Your task to perform on an android device: turn off notifications settings in the gmail app Image 0: 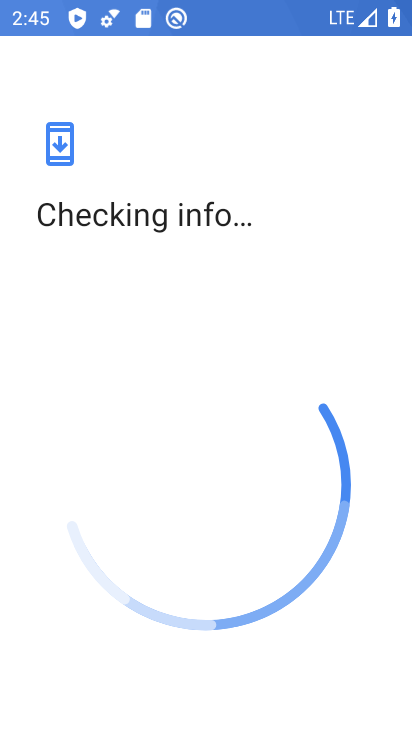
Step 0: press home button
Your task to perform on an android device: turn off notifications settings in the gmail app Image 1: 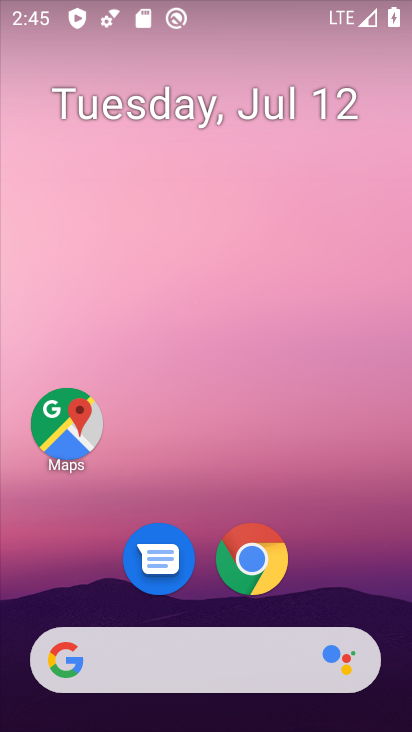
Step 1: drag from (362, 584) to (348, 321)
Your task to perform on an android device: turn off notifications settings in the gmail app Image 2: 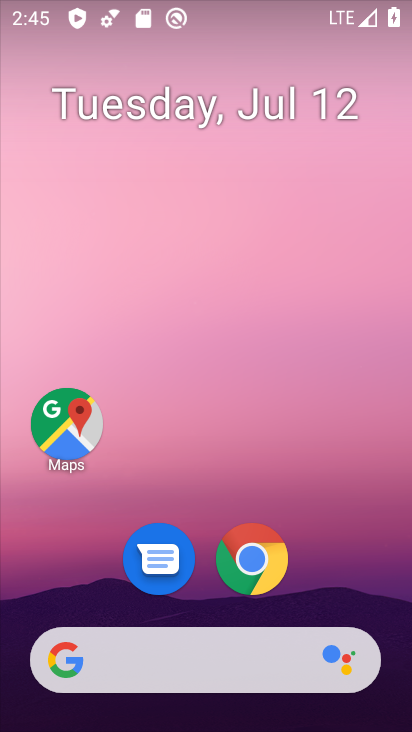
Step 2: drag from (375, 569) to (396, 297)
Your task to perform on an android device: turn off notifications settings in the gmail app Image 3: 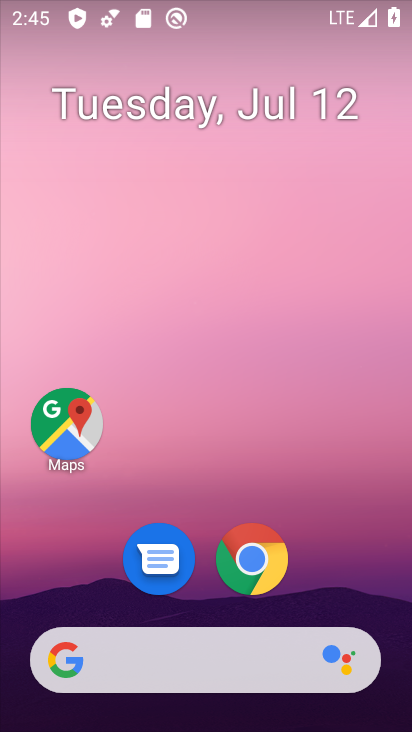
Step 3: drag from (391, 578) to (377, 118)
Your task to perform on an android device: turn off notifications settings in the gmail app Image 4: 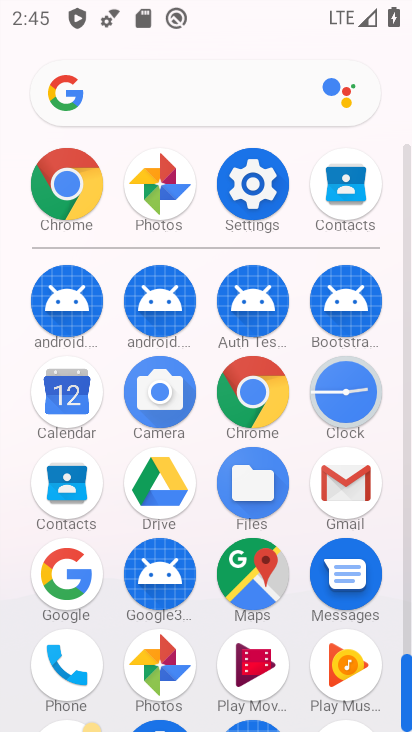
Step 4: click (378, 488)
Your task to perform on an android device: turn off notifications settings in the gmail app Image 5: 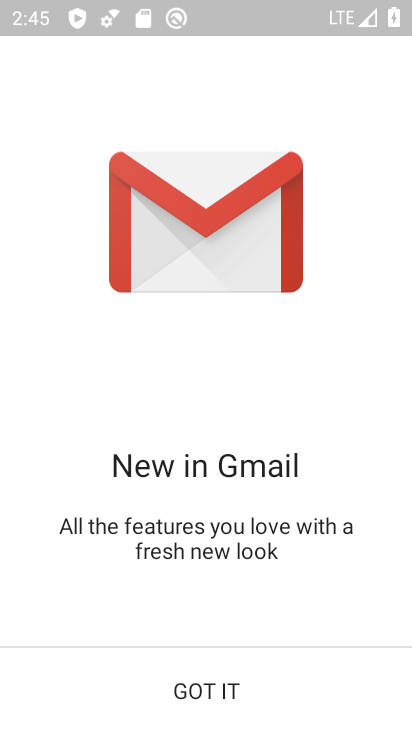
Step 5: click (345, 669)
Your task to perform on an android device: turn off notifications settings in the gmail app Image 6: 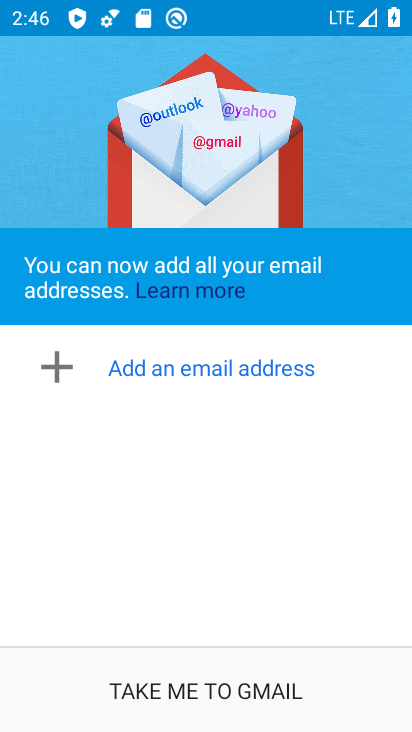
Step 6: click (303, 682)
Your task to perform on an android device: turn off notifications settings in the gmail app Image 7: 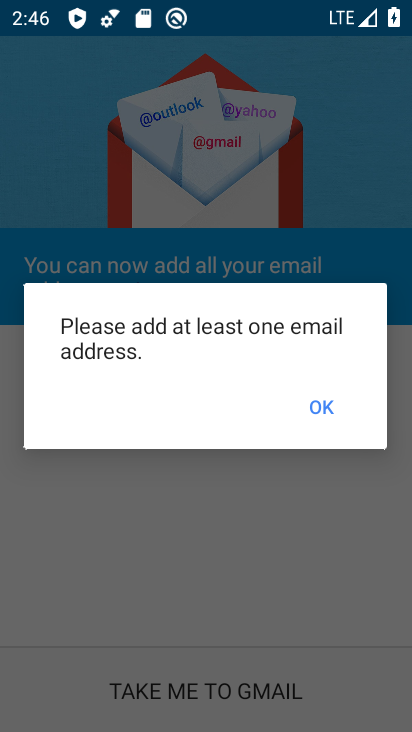
Step 7: task complete